Your task to perform on an android device: turn pop-ups on in chrome Image 0: 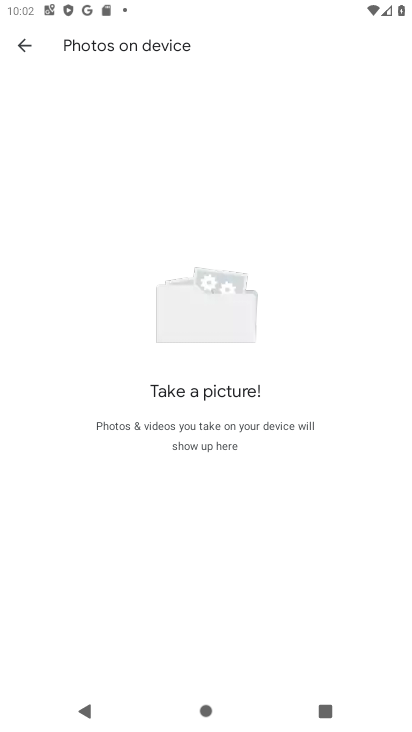
Step 0: press home button
Your task to perform on an android device: turn pop-ups on in chrome Image 1: 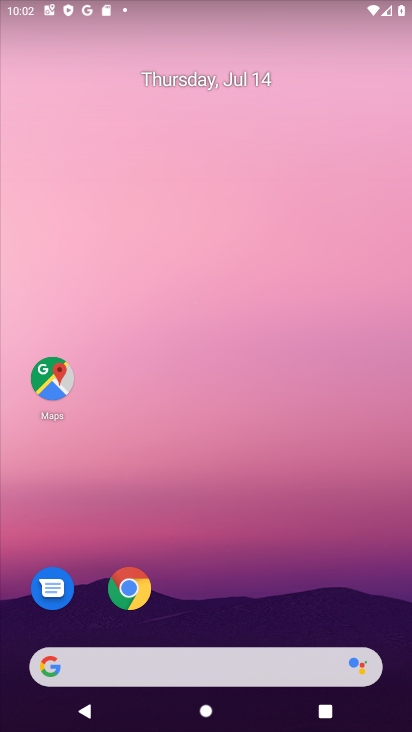
Step 1: click (132, 596)
Your task to perform on an android device: turn pop-ups on in chrome Image 2: 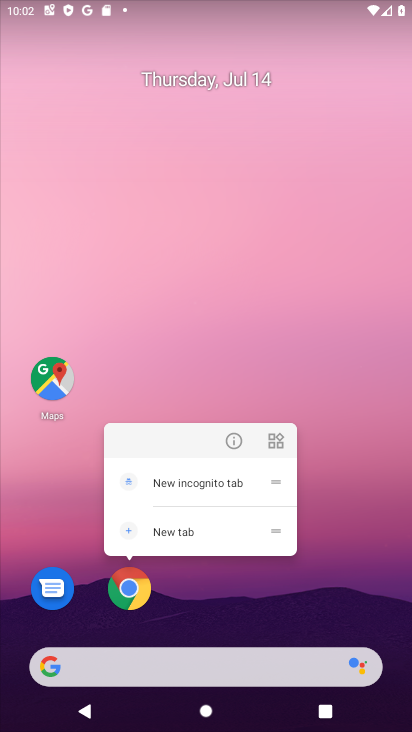
Step 2: click (132, 588)
Your task to perform on an android device: turn pop-ups on in chrome Image 3: 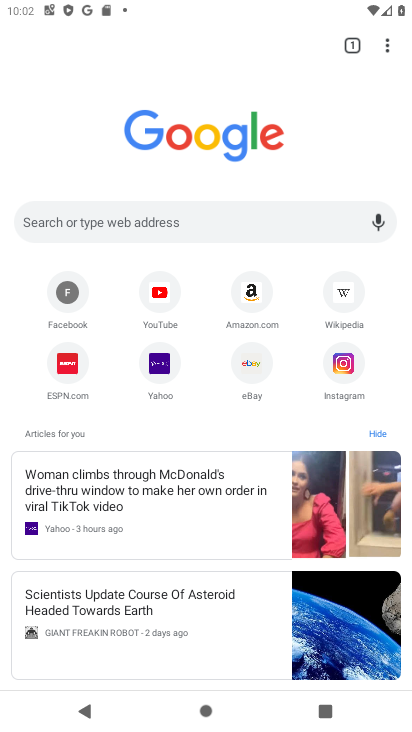
Step 3: drag from (388, 46) to (250, 378)
Your task to perform on an android device: turn pop-ups on in chrome Image 4: 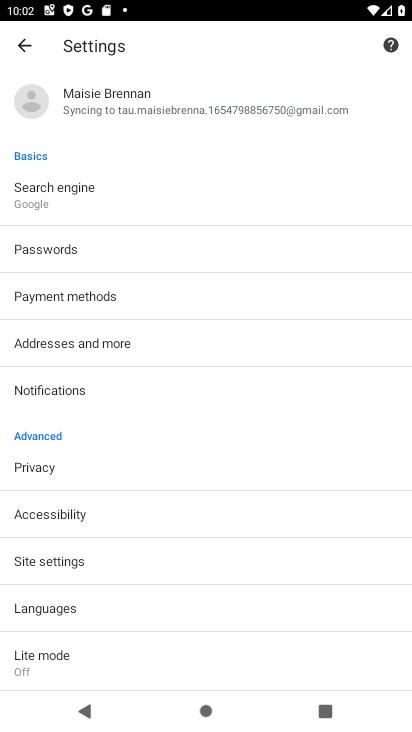
Step 4: click (66, 562)
Your task to perform on an android device: turn pop-ups on in chrome Image 5: 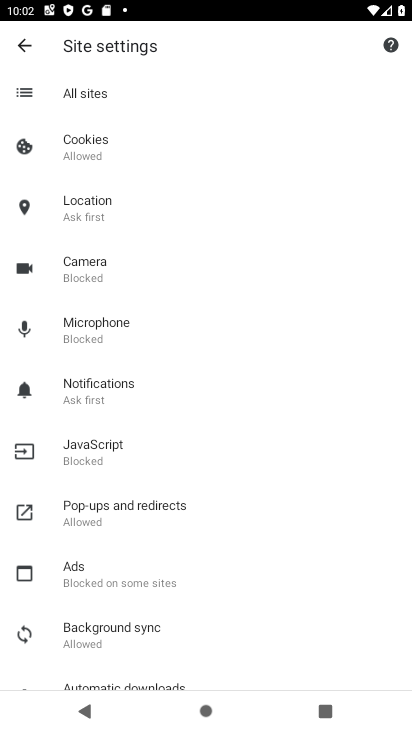
Step 5: click (108, 503)
Your task to perform on an android device: turn pop-ups on in chrome Image 6: 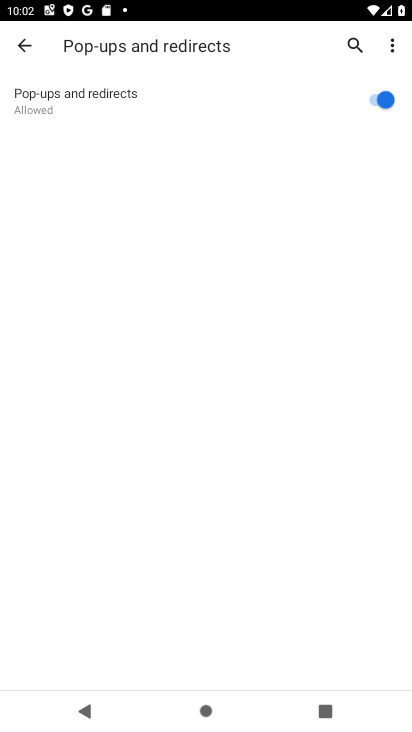
Step 6: task complete